Your task to perform on an android device: turn off airplane mode Image 0: 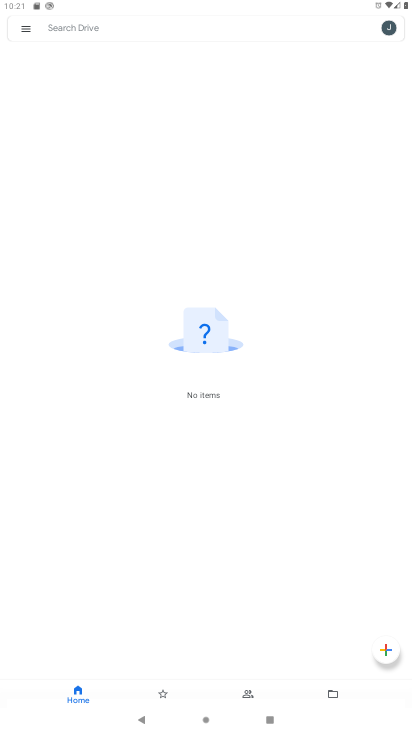
Step 0: press home button
Your task to perform on an android device: turn off airplane mode Image 1: 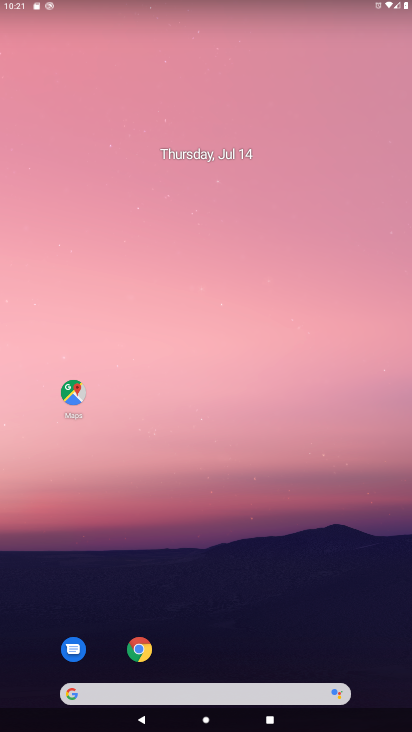
Step 1: drag from (255, 17) to (307, 730)
Your task to perform on an android device: turn off airplane mode Image 2: 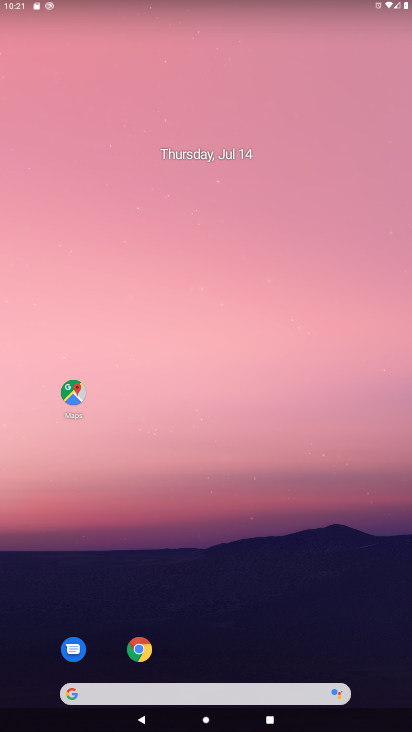
Step 2: drag from (190, 720) to (238, 22)
Your task to perform on an android device: turn off airplane mode Image 3: 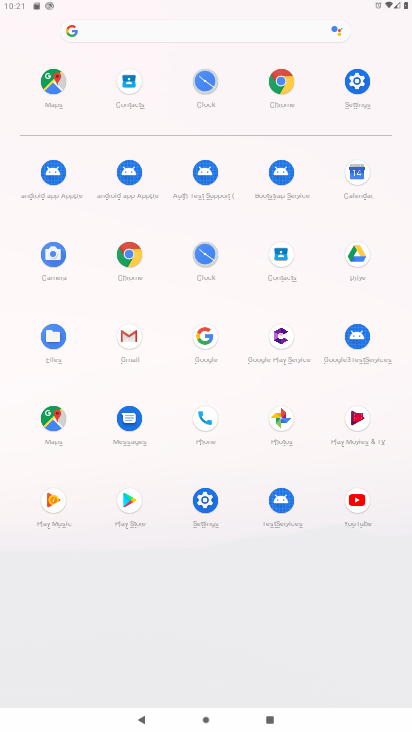
Step 3: click (354, 78)
Your task to perform on an android device: turn off airplane mode Image 4: 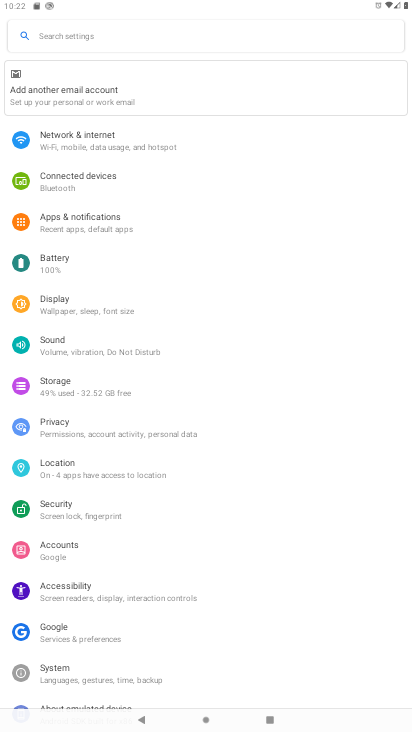
Step 4: click (130, 149)
Your task to perform on an android device: turn off airplane mode Image 5: 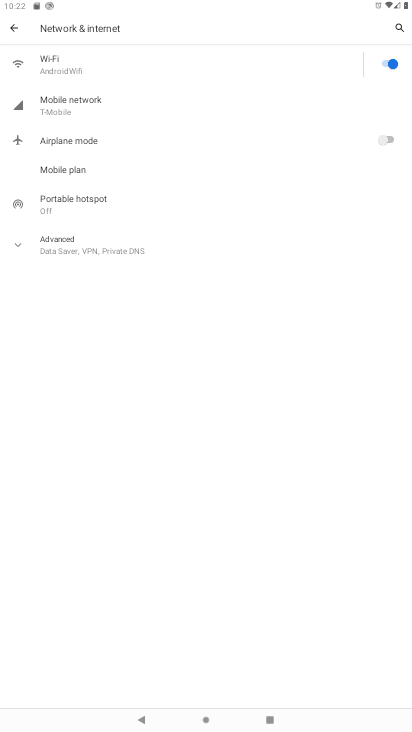
Step 5: task complete